Your task to perform on an android device: What's the news this morning? Image 0: 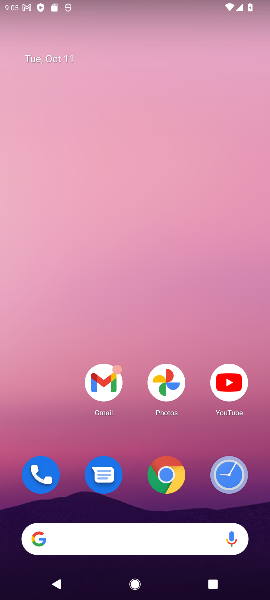
Step 0: click (159, 489)
Your task to perform on an android device: What's the news this morning? Image 1: 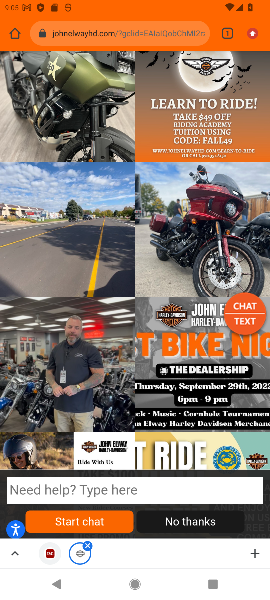
Step 1: click (169, 29)
Your task to perform on an android device: What's the news this morning? Image 2: 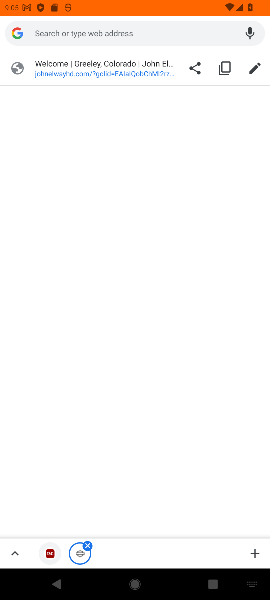
Step 2: type "What's the news this morning?"
Your task to perform on an android device: What's the news this morning? Image 3: 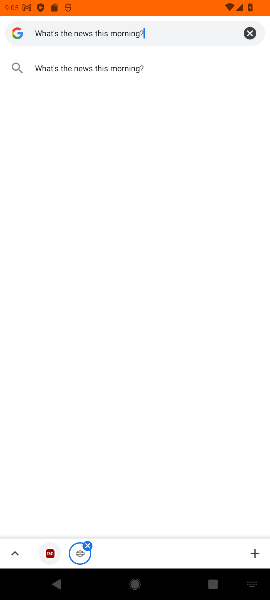
Step 3: type ""
Your task to perform on an android device: What's the news this morning? Image 4: 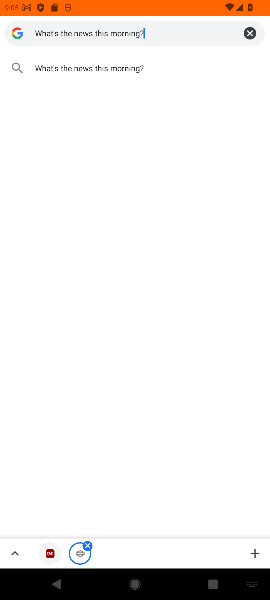
Step 4: click (102, 70)
Your task to perform on an android device: What's the news this morning? Image 5: 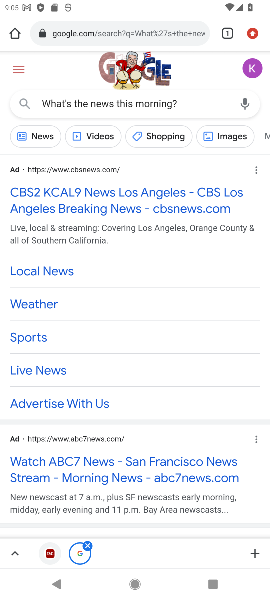
Step 5: click (58, 209)
Your task to perform on an android device: What's the news this morning? Image 6: 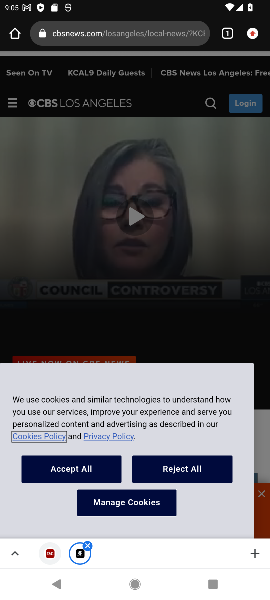
Step 6: drag from (69, 352) to (115, 152)
Your task to perform on an android device: What's the news this morning? Image 7: 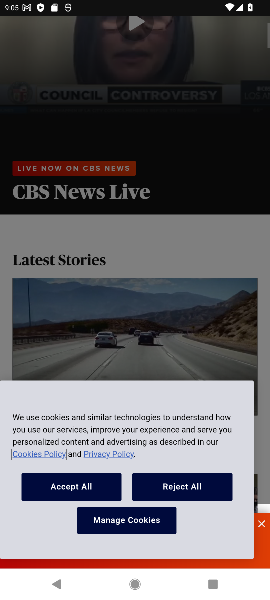
Step 7: drag from (115, 308) to (135, 174)
Your task to perform on an android device: What's the news this morning? Image 8: 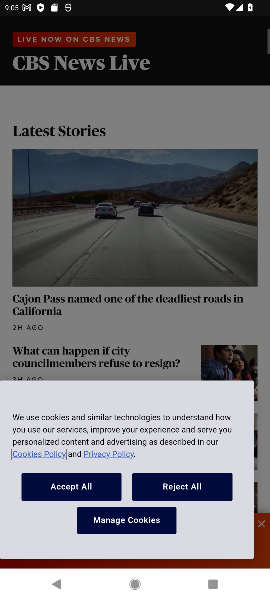
Step 8: drag from (124, 338) to (145, 175)
Your task to perform on an android device: What's the news this morning? Image 9: 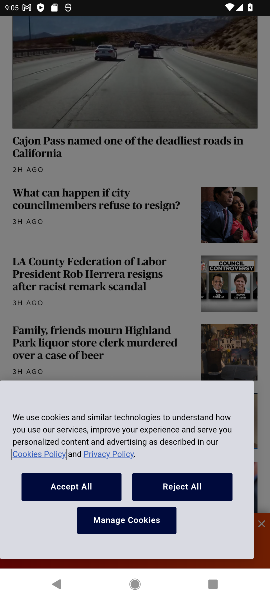
Step 9: drag from (145, 367) to (150, 219)
Your task to perform on an android device: What's the news this morning? Image 10: 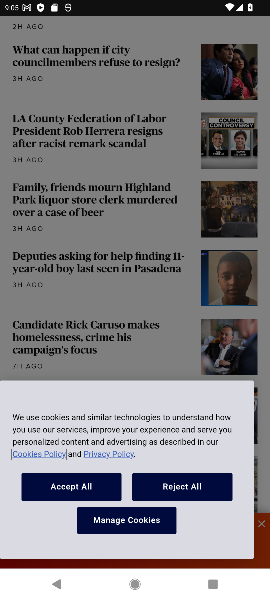
Step 10: drag from (116, 427) to (137, 238)
Your task to perform on an android device: What's the news this morning? Image 11: 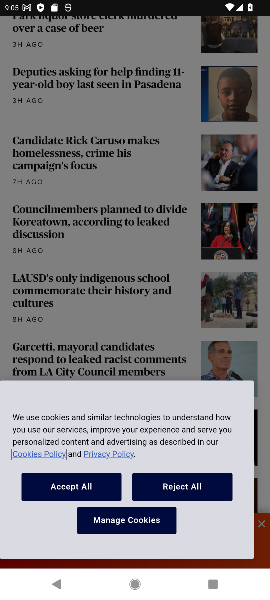
Step 11: drag from (130, 436) to (185, 143)
Your task to perform on an android device: What's the news this morning? Image 12: 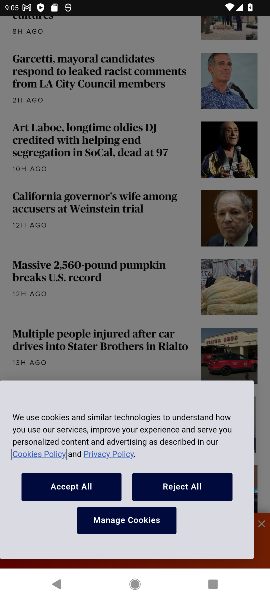
Step 12: drag from (181, 254) to (191, 109)
Your task to perform on an android device: What's the news this morning? Image 13: 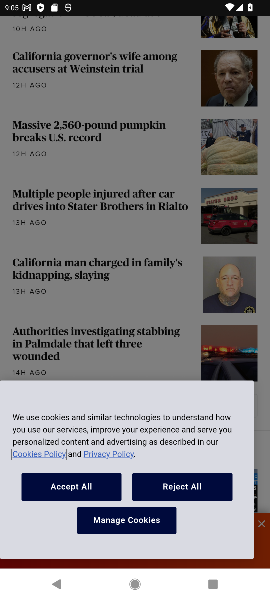
Step 13: click (170, 474)
Your task to perform on an android device: What's the news this morning? Image 14: 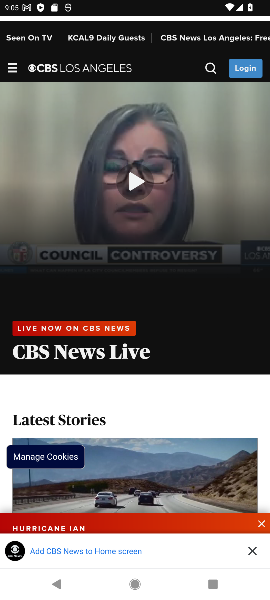
Step 14: drag from (170, 488) to (193, 149)
Your task to perform on an android device: What's the news this morning? Image 15: 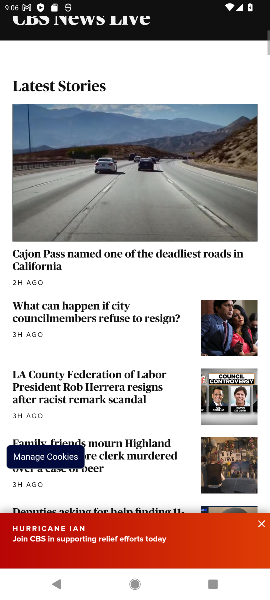
Step 15: drag from (176, 439) to (188, 191)
Your task to perform on an android device: What's the news this morning? Image 16: 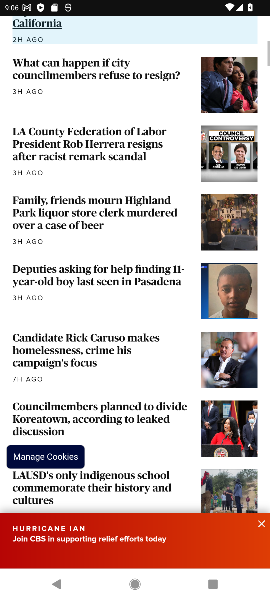
Step 16: drag from (176, 263) to (193, 197)
Your task to perform on an android device: What's the news this morning? Image 17: 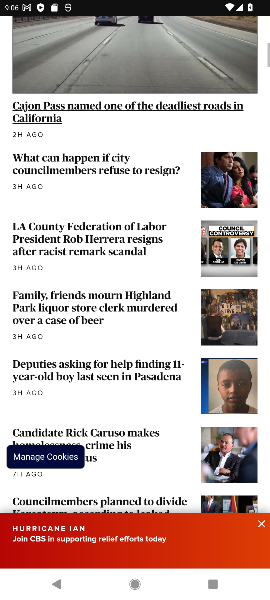
Step 17: drag from (186, 424) to (229, 177)
Your task to perform on an android device: What's the news this morning? Image 18: 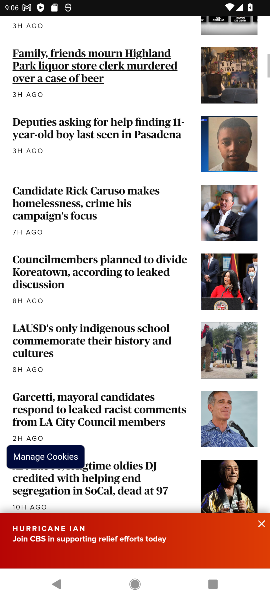
Step 18: drag from (174, 428) to (188, 246)
Your task to perform on an android device: What's the news this morning? Image 19: 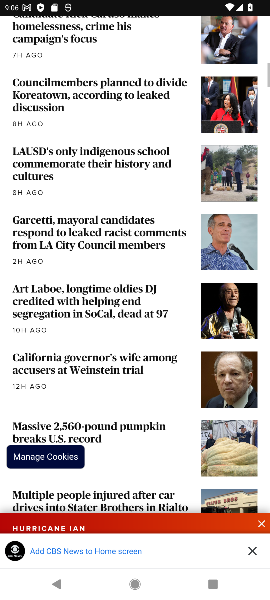
Step 19: drag from (177, 456) to (210, 231)
Your task to perform on an android device: What's the news this morning? Image 20: 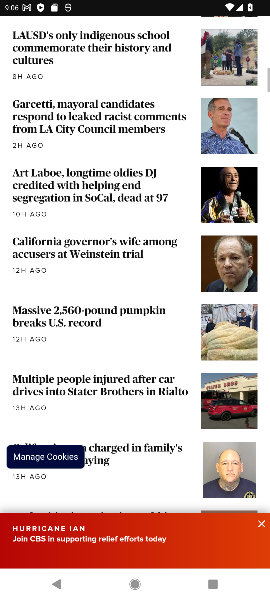
Step 20: drag from (200, 433) to (229, 232)
Your task to perform on an android device: What's the news this morning? Image 21: 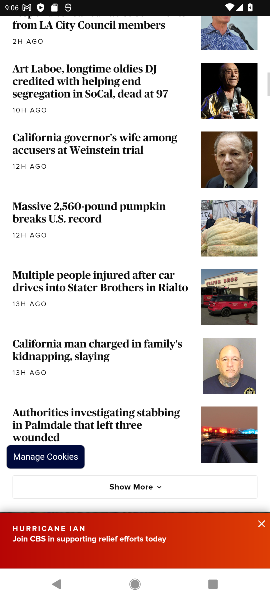
Step 21: drag from (205, 408) to (236, 187)
Your task to perform on an android device: What's the news this morning? Image 22: 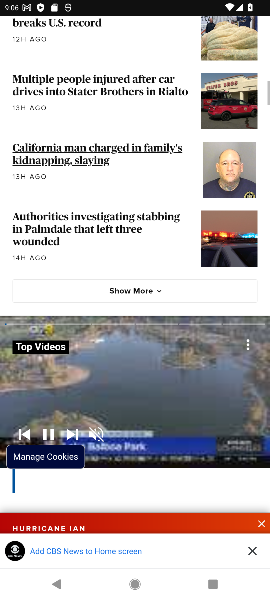
Step 22: drag from (174, 341) to (209, 114)
Your task to perform on an android device: What's the news this morning? Image 23: 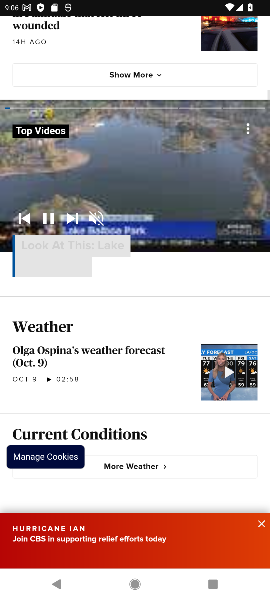
Step 23: drag from (190, 382) to (220, 170)
Your task to perform on an android device: What's the news this morning? Image 24: 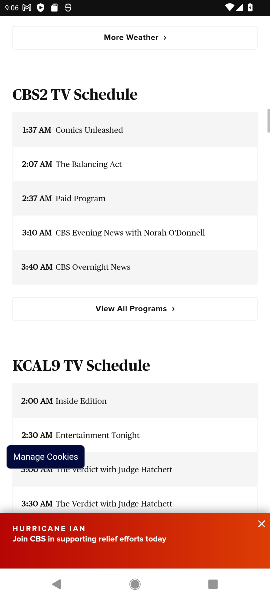
Step 24: drag from (192, 275) to (216, 142)
Your task to perform on an android device: What's the news this morning? Image 25: 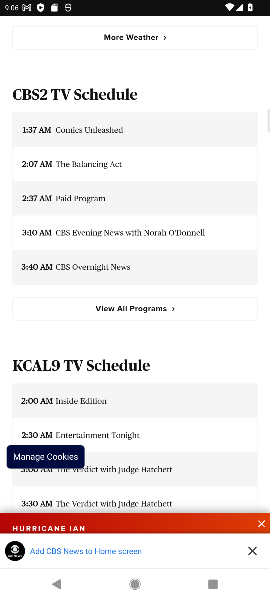
Step 25: click (209, 151)
Your task to perform on an android device: What's the news this morning? Image 26: 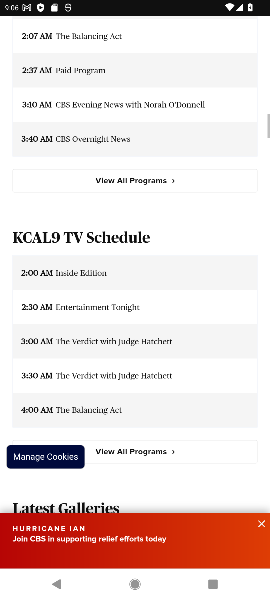
Step 26: drag from (181, 413) to (182, 237)
Your task to perform on an android device: What's the news this morning? Image 27: 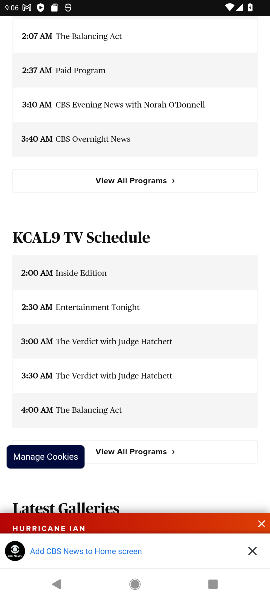
Step 27: drag from (144, 419) to (151, 273)
Your task to perform on an android device: What's the news this morning? Image 28: 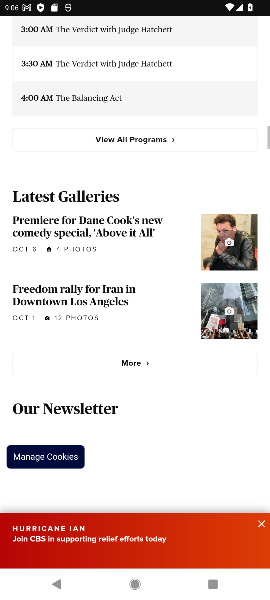
Step 28: drag from (156, 320) to (161, 263)
Your task to perform on an android device: What's the news this morning? Image 29: 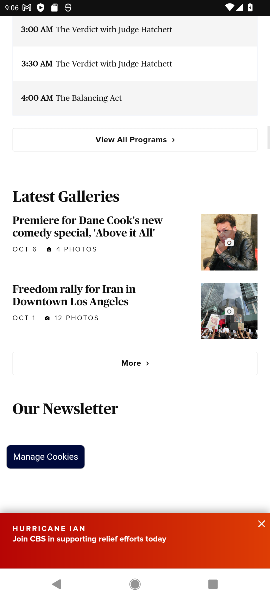
Step 29: drag from (175, 341) to (187, 199)
Your task to perform on an android device: What's the news this morning? Image 30: 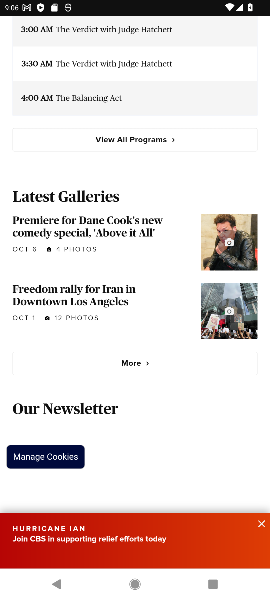
Step 30: drag from (203, 308) to (213, 217)
Your task to perform on an android device: What's the news this morning? Image 31: 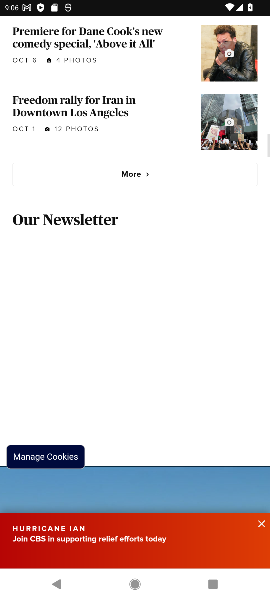
Step 31: drag from (183, 283) to (191, 188)
Your task to perform on an android device: What's the news this morning? Image 32: 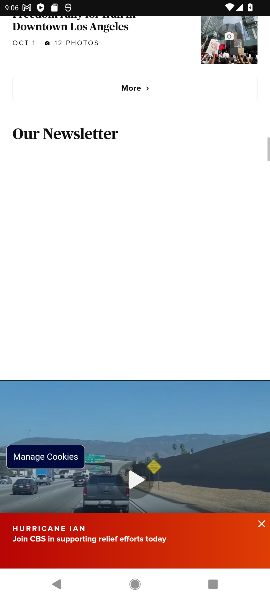
Step 32: drag from (187, 342) to (199, 228)
Your task to perform on an android device: What's the news this morning? Image 33: 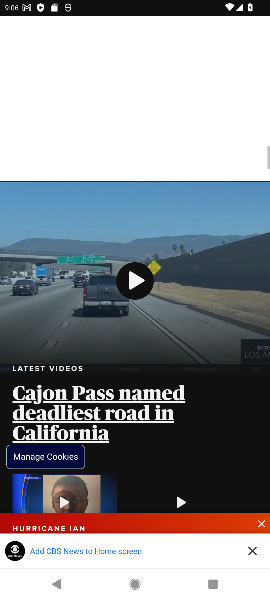
Step 33: drag from (193, 360) to (200, 212)
Your task to perform on an android device: What's the news this morning? Image 34: 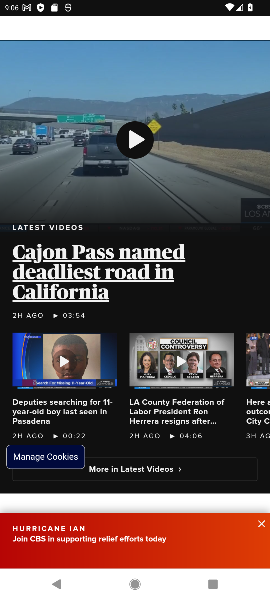
Step 34: drag from (182, 373) to (181, 216)
Your task to perform on an android device: What's the news this morning? Image 35: 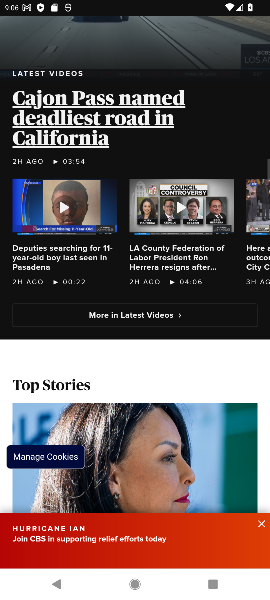
Step 35: drag from (163, 393) to (192, 163)
Your task to perform on an android device: What's the news this morning? Image 36: 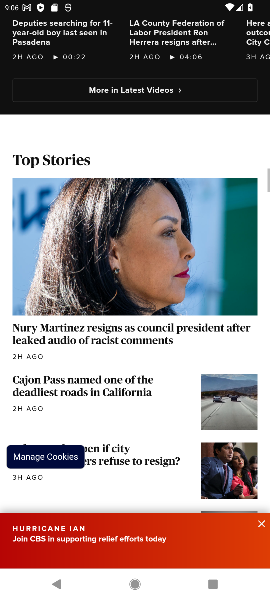
Step 36: drag from (175, 393) to (191, 147)
Your task to perform on an android device: What's the news this morning? Image 37: 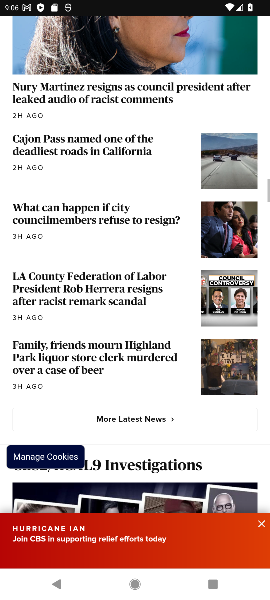
Step 37: drag from (167, 313) to (183, 155)
Your task to perform on an android device: What's the news this morning? Image 38: 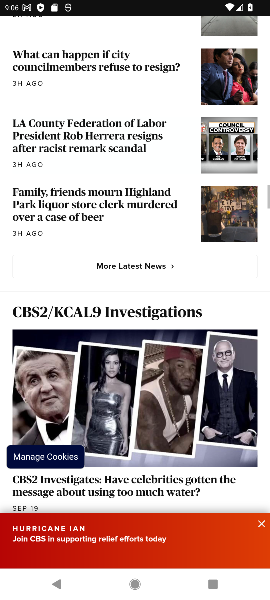
Step 38: drag from (184, 375) to (198, 158)
Your task to perform on an android device: What's the news this morning? Image 39: 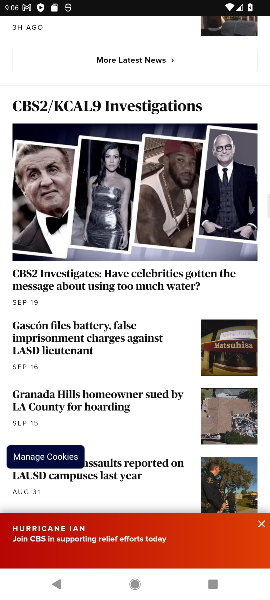
Step 39: drag from (164, 264) to (165, 177)
Your task to perform on an android device: What's the news this morning? Image 40: 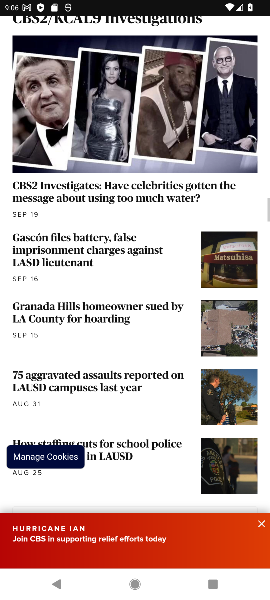
Step 40: drag from (162, 333) to (183, 177)
Your task to perform on an android device: What's the news this morning? Image 41: 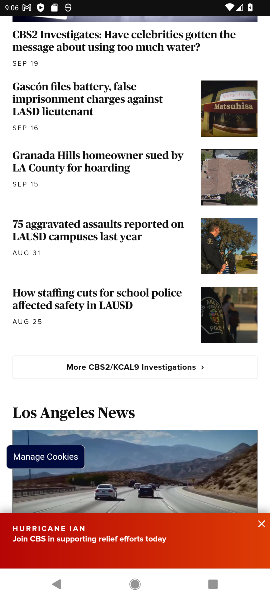
Step 41: drag from (167, 414) to (181, 225)
Your task to perform on an android device: What's the news this morning? Image 42: 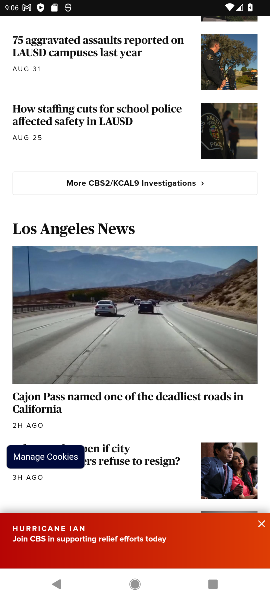
Step 42: drag from (200, 435) to (192, 254)
Your task to perform on an android device: What's the news this morning? Image 43: 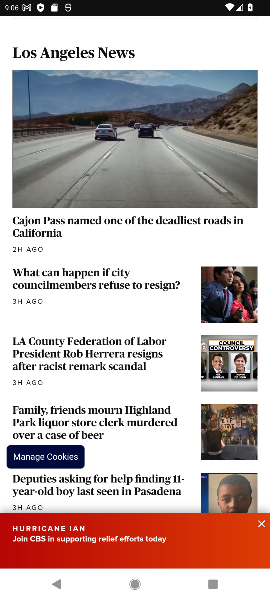
Step 43: drag from (202, 457) to (207, 294)
Your task to perform on an android device: What's the news this morning? Image 44: 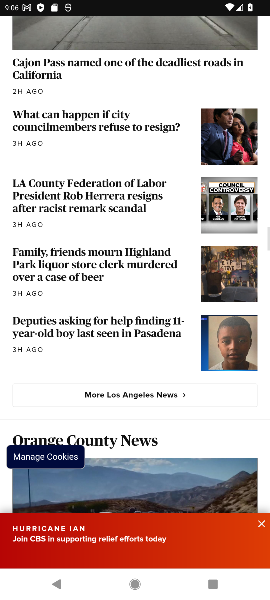
Step 44: drag from (193, 453) to (209, 282)
Your task to perform on an android device: What's the news this morning? Image 45: 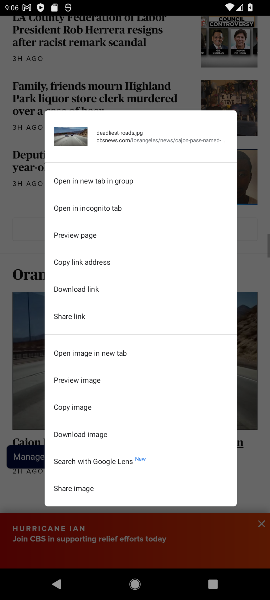
Step 45: drag from (200, 420) to (213, 298)
Your task to perform on an android device: What's the news this morning? Image 46: 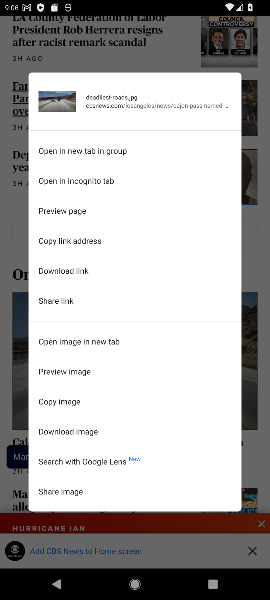
Step 46: click (215, 41)
Your task to perform on an android device: What's the news this morning? Image 47: 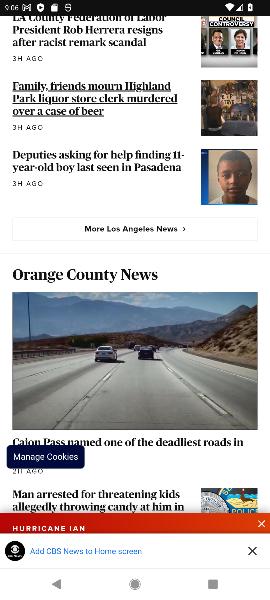
Step 47: drag from (204, 352) to (208, 114)
Your task to perform on an android device: What's the news this morning? Image 48: 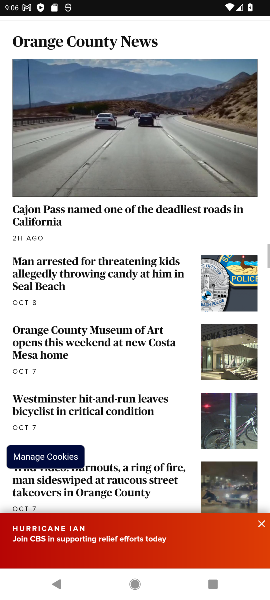
Step 48: drag from (226, 196) to (218, 138)
Your task to perform on an android device: What's the news this morning? Image 49: 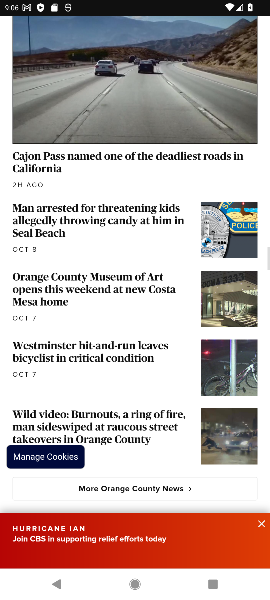
Step 49: drag from (168, 344) to (180, 133)
Your task to perform on an android device: What's the news this morning? Image 50: 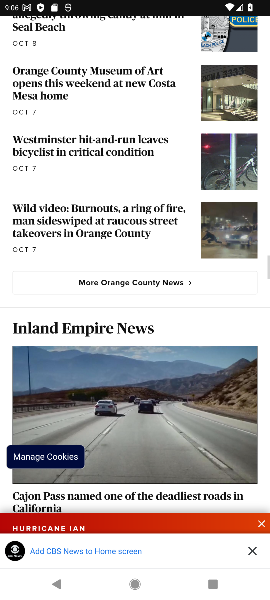
Step 50: drag from (155, 299) to (169, 138)
Your task to perform on an android device: What's the news this morning? Image 51: 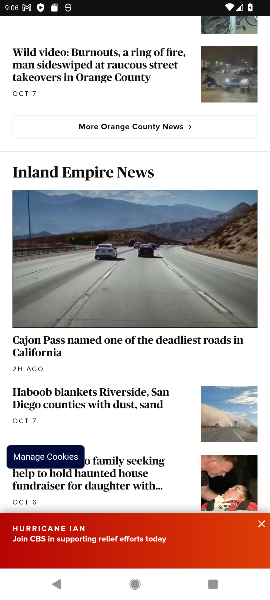
Step 51: drag from (152, 319) to (158, 157)
Your task to perform on an android device: What's the news this morning? Image 52: 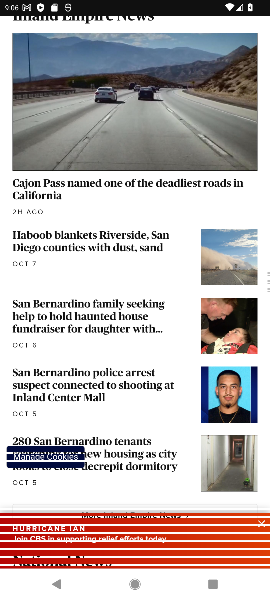
Step 52: drag from (155, 356) to (170, 175)
Your task to perform on an android device: What's the news this morning? Image 53: 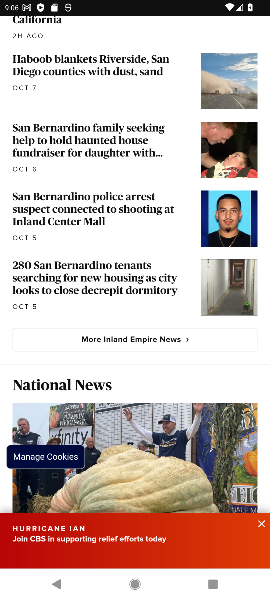
Step 53: drag from (191, 396) to (178, 205)
Your task to perform on an android device: What's the news this morning? Image 54: 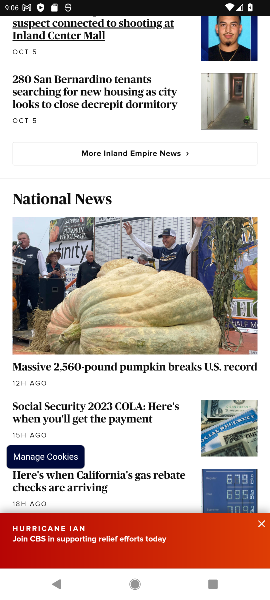
Step 54: drag from (180, 389) to (193, 273)
Your task to perform on an android device: What's the news this morning? Image 55: 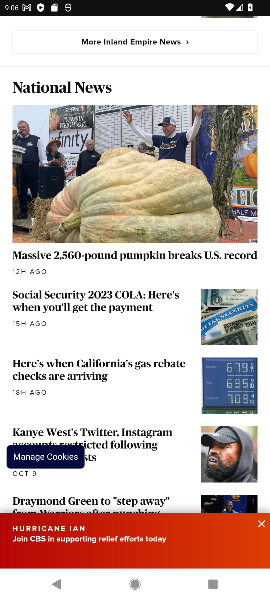
Step 55: drag from (202, 429) to (205, 116)
Your task to perform on an android device: What's the news this morning? Image 56: 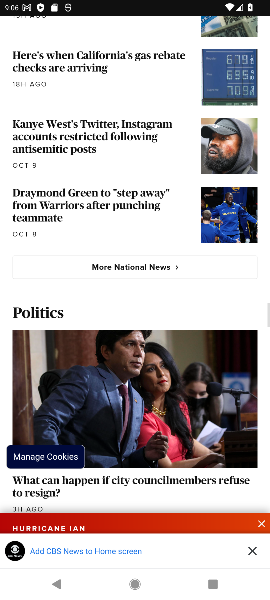
Step 56: click (214, 177)
Your task to perform on an android device: What's the news this morning? Image 57: 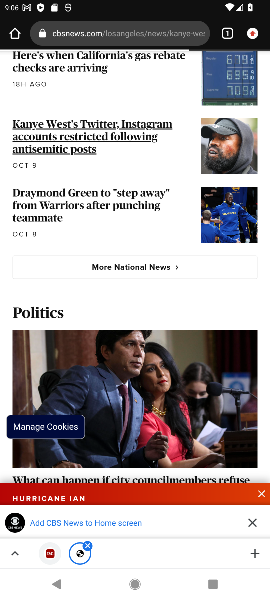
Step 57: drag from (208, 364) to (211, 134)
Your task to perform on an android device: What's the news this morning? Image 58: 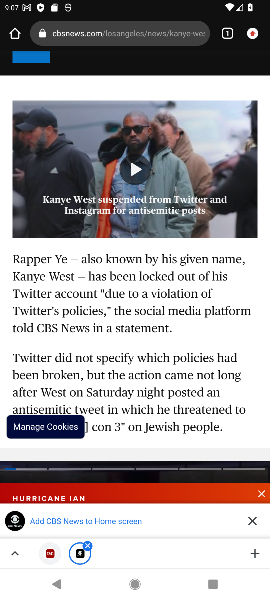
Step 58: drag from (31, 427) to (106, 93)
Your task to perform on an android device: What's the news this morning? Image 59: 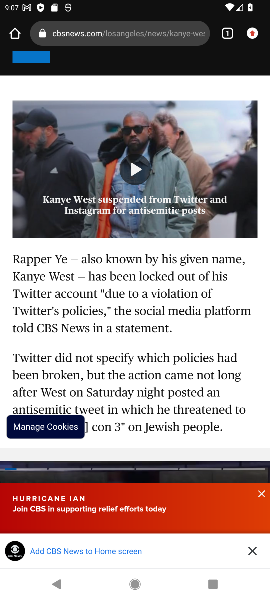
Step 59: click (159, 145)
Your task to perform on an android device: What's the news this morning? Image 60: 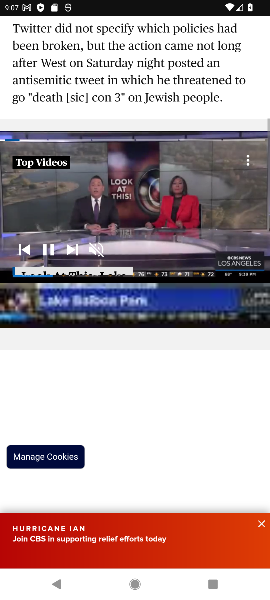
Step 60: task complete